Your task to perform on an android device: create a new album in the google photos Image 0: 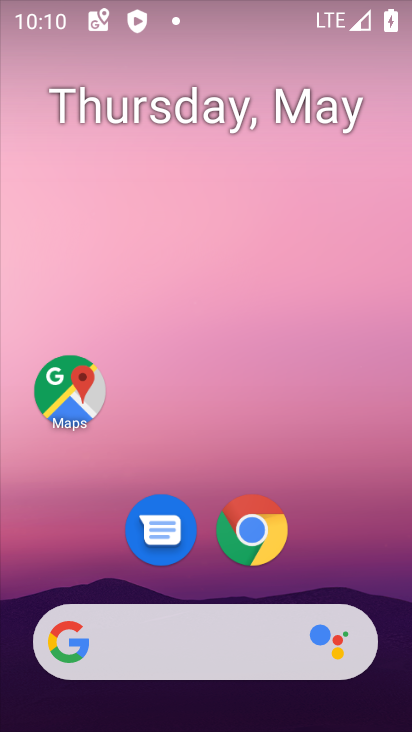
Step 0: drag from (226, 581) to (244, 233)
Your task to perform on an android device: create a new album in the google photos Image 1: 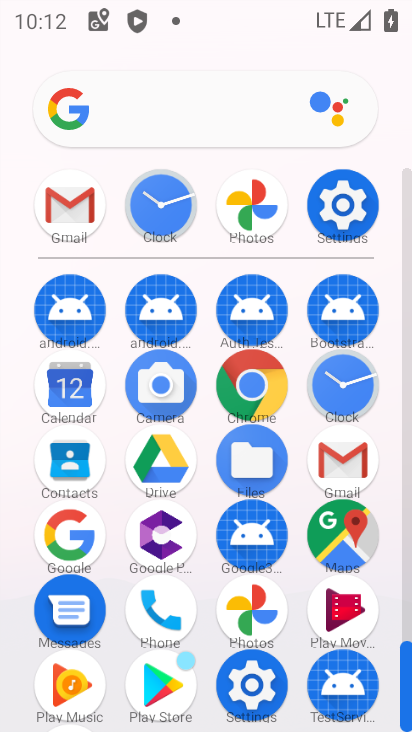
Step 1: click (263, 609)
Your task to perform on an android device: create a new album in the google photos Image 2: 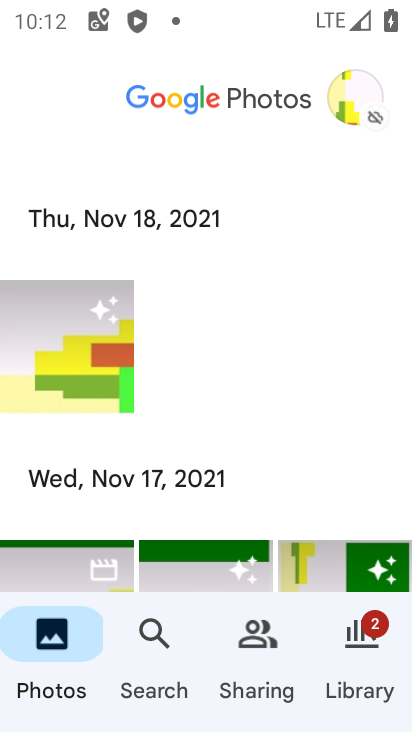
Step 2: click (73, 388)
Your task to perform on an android device: create a new album in the google photos Image 3: 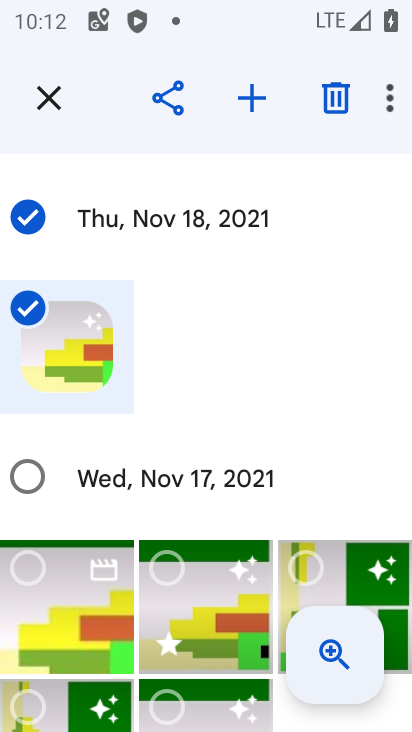
Step 3: click (233, 112)
Your task to perform on an android device: create a new album in the google photos Image 4: 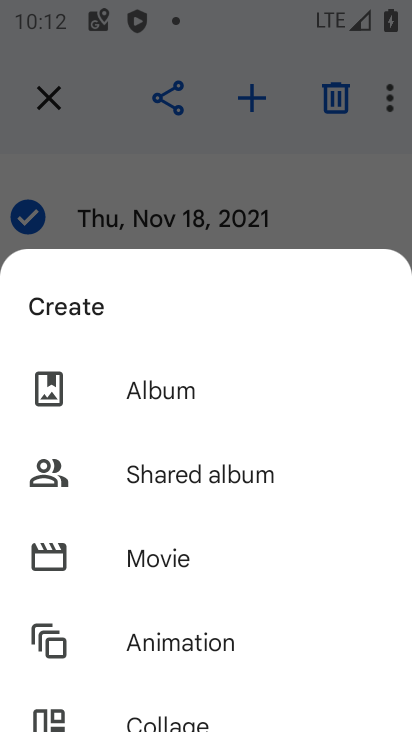
Step 4: click (166, 391)
Your task to perform on an android device: create a new album in the google photos Image 5: 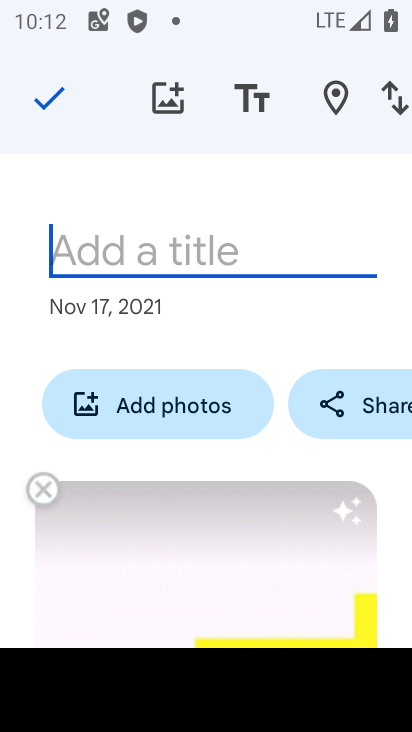
Step 5: type "jkjkhj"
Your task to perform on an android device: create a new album in the google photos Image 6: 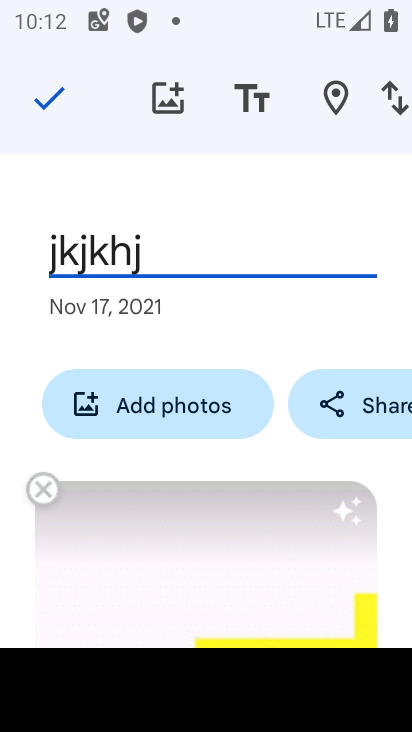
Step 6: click (56, 98)
Your task to perform on an android device: create a new album in the google photos Image 7: 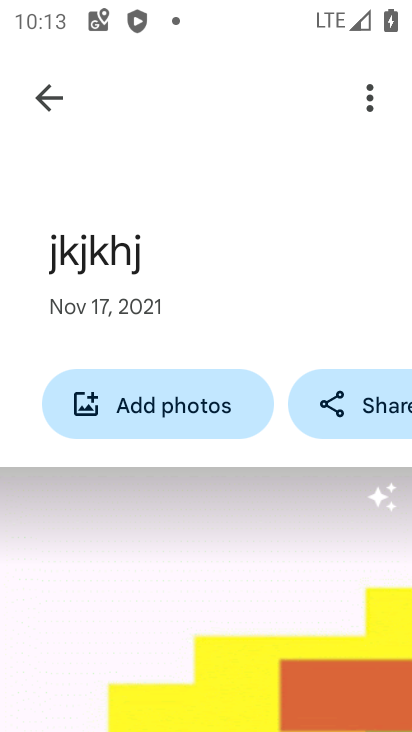
Step 7: task complete